Your task to perform on an android device: What's the weather going to be tomorrow? Image 0: 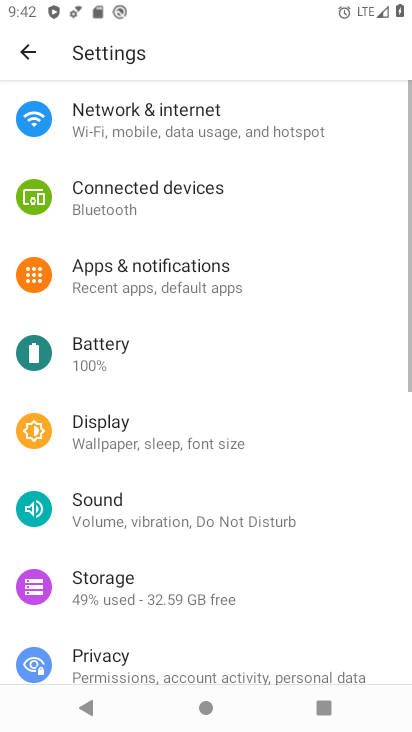
Step 0: press home button
Your task to perform on an android device: What's the weather going to be tomorrow? Image 1: 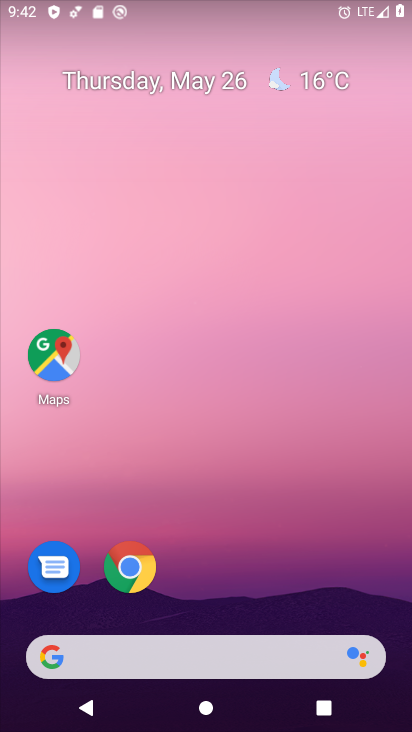
Step 1: click (330, 69)
Your task to perform on an android device: What's the weather going to be tomorrow? Image 2: 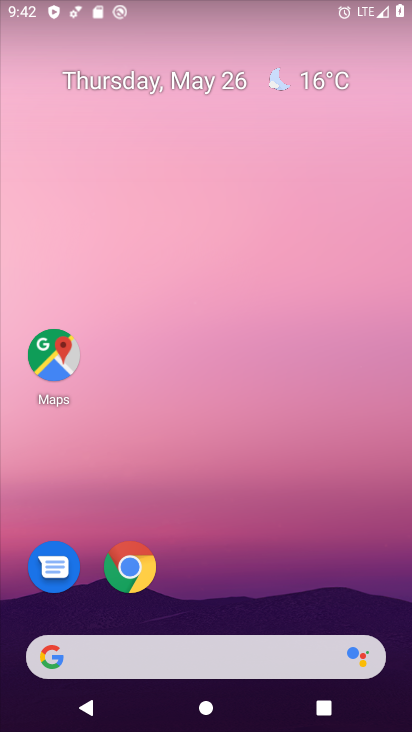
Step 2: click (322, 79)
Your task to perform on an android device: What's the weather going to be tomorrow? Image 3: 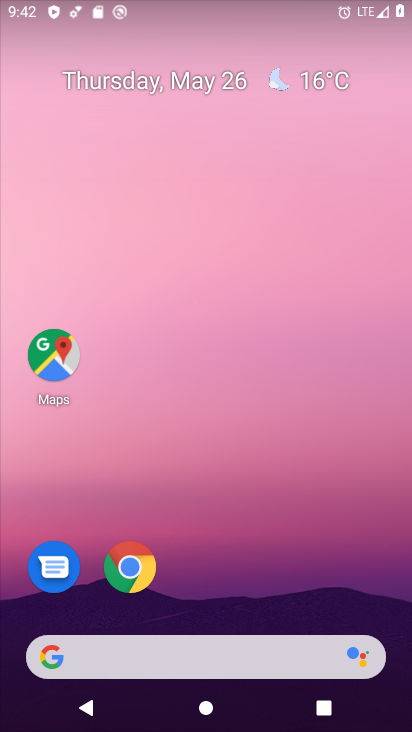
Step 3: drag from (1, 244) to (321, 226)
Your task to perform on an android device: What's the weather going to be tomorrow? Image 4: 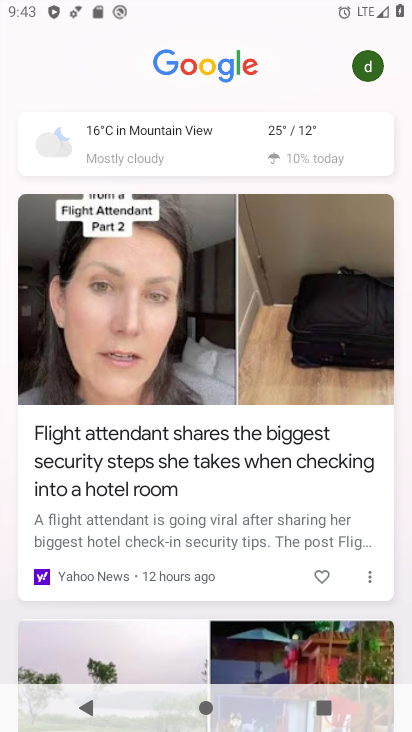
Step 4: click (286, 133)
Your task to perform on an android device: What's the weather going to be tomorrow? Image 5: 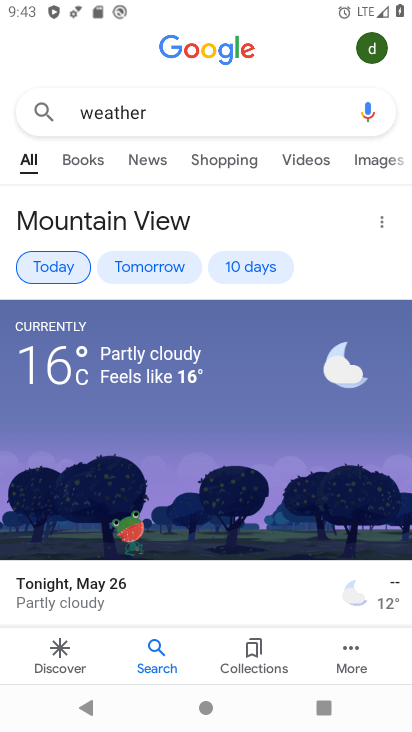
Step 5: click (164, 260)
Your task to perform on an android device: What's the weather going to be tomorrow? Image 6: 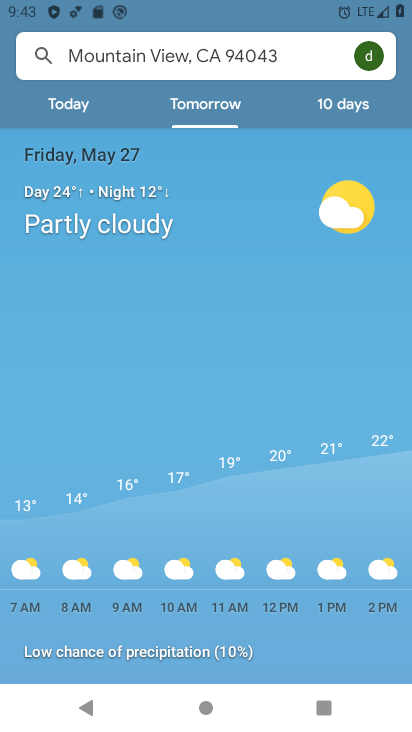
Step 6: task complete